Your task to perform on an android device: toggle notifications settings in the gmail app Image 0: 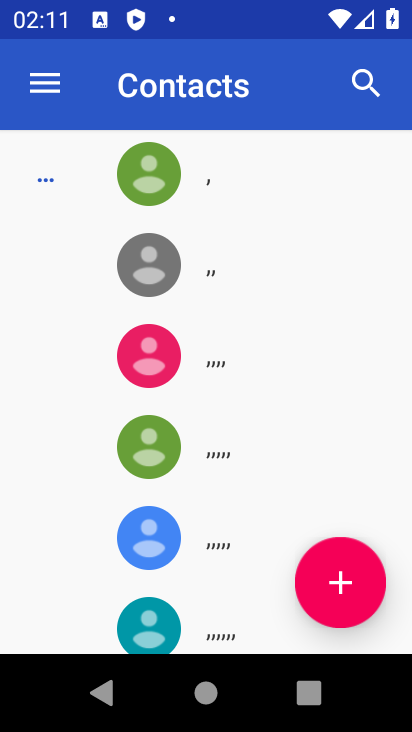
Step 0: press home button
Your task to perform on an android device: toggle notifications settings in the gmail app Image 1: 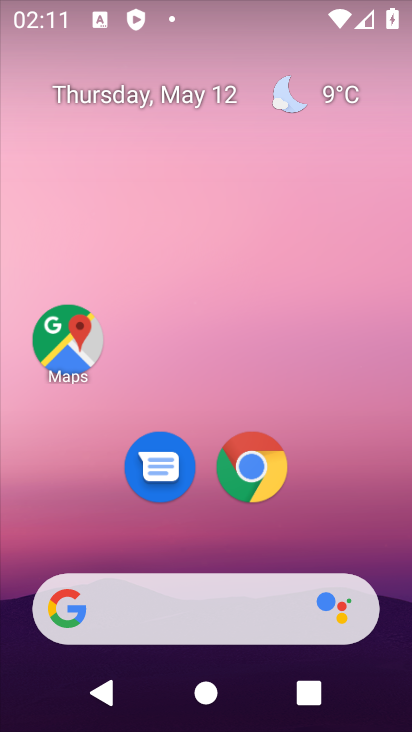
Step 1: drag from (290, 553) to (307, 251)
Your task to perform on an android device: toggle notifications settings in the gmail app Image 2: 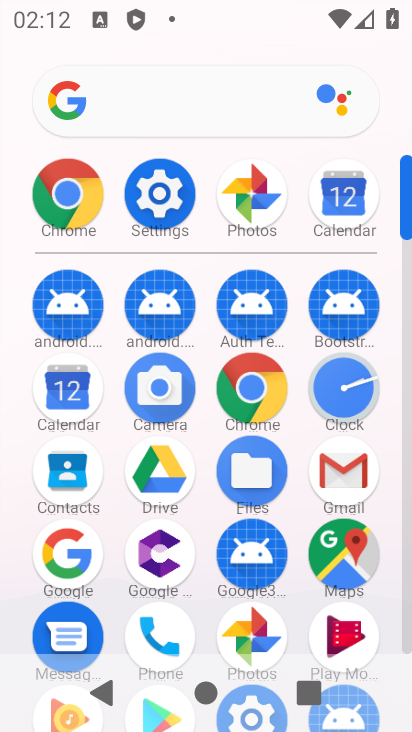
Step 2: click (364, 471)
Your task to perform on an android device: toggle notifications settings in the gmail app Image 3: 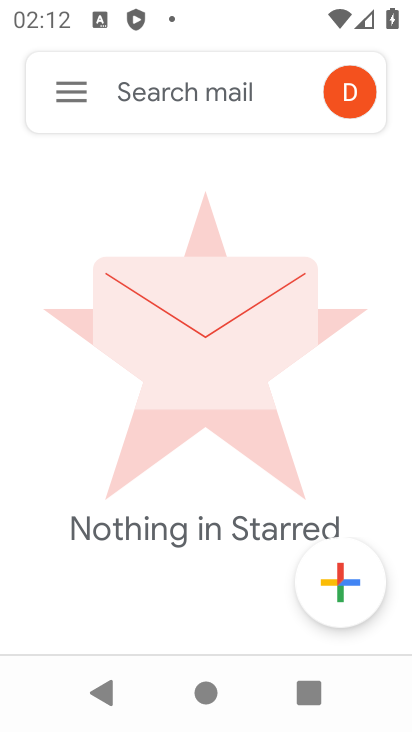
Step 3: click (68, 94)
Your task to perform on an android device: toggle notifications settings in the gmail app Image 4: 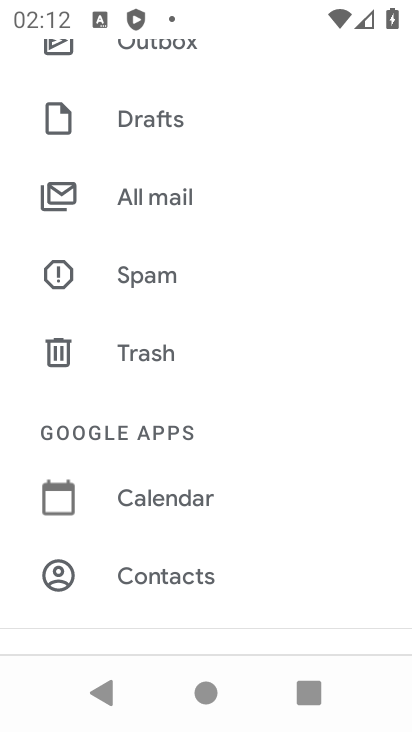
Step 4: drag from (192, 545) to (230, 252)
Your task to perform on an android device: toggle notifications settings in the gmail app Image 5: 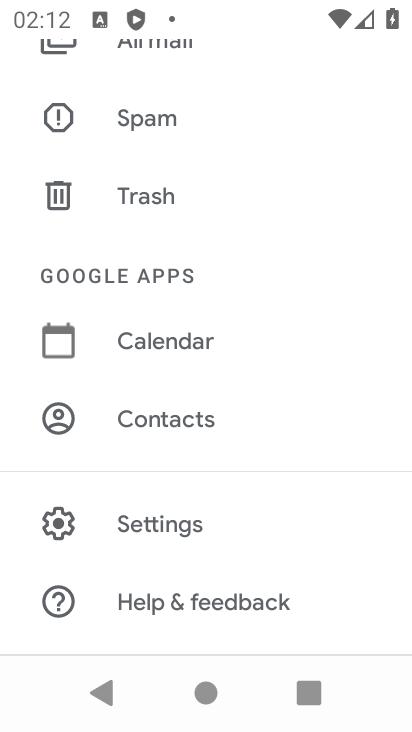
Step 5: click (155, 533)
Your task to perform on an android device: toggle notifications settings in the gmail app Image 6: 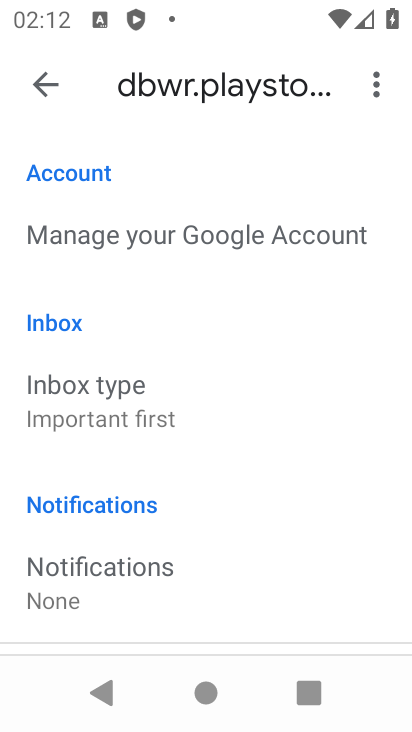
Step 6: click (107, 572)
Your task to perform on an android device: toggle notifications settings in the gmail app Image 7: 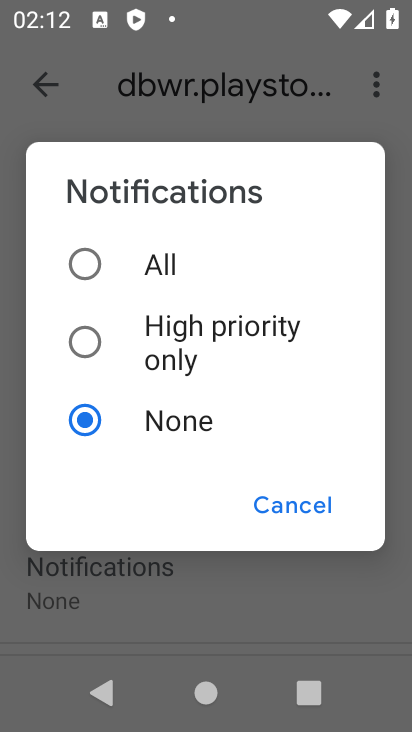
Step 7: click (178, 244)
Your task to perform on an android device: toggle notifications settings in the gmail app Image 8: 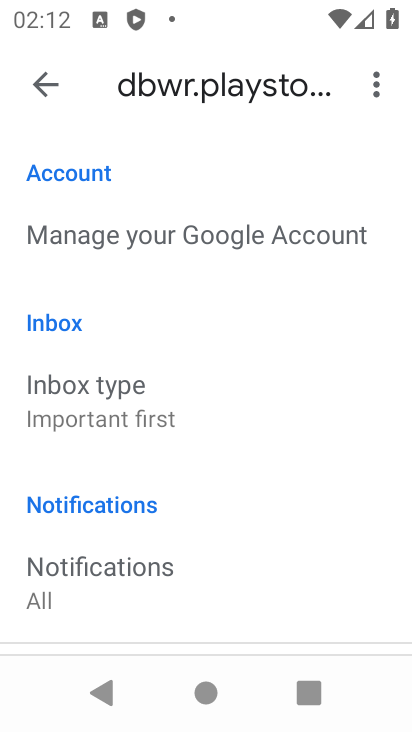
Step 8: task complete